Your task to perform on an android device: check android version Image 0: 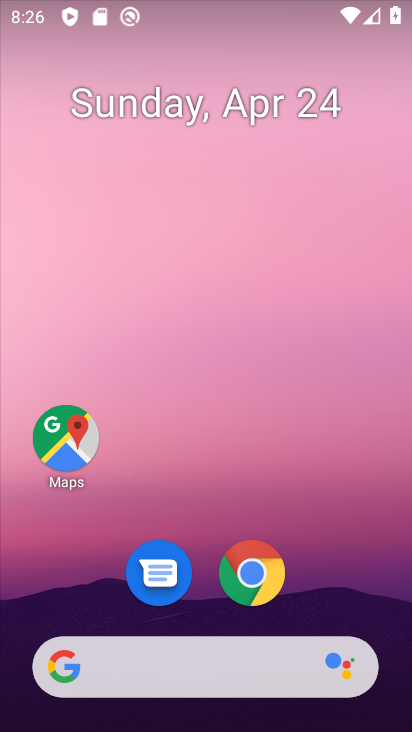
Step 0: drag from (353, 567) to (294, 45)
Your task to perform on an android device: check android version Image 1: 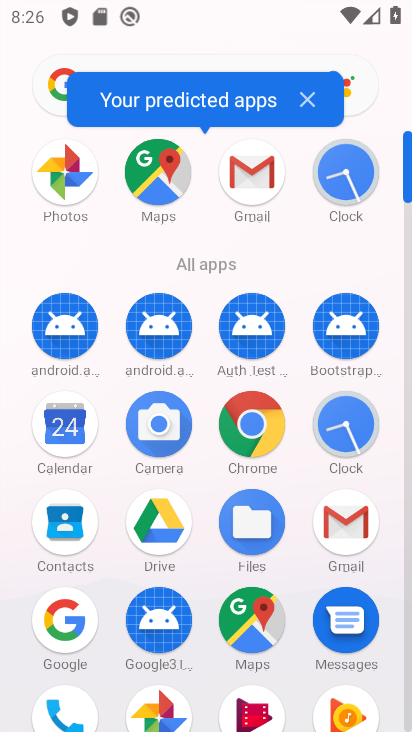
Step 1: drag from (310, 520) to (368, 155)
Your task to perform on an android device: check android version Image 2: 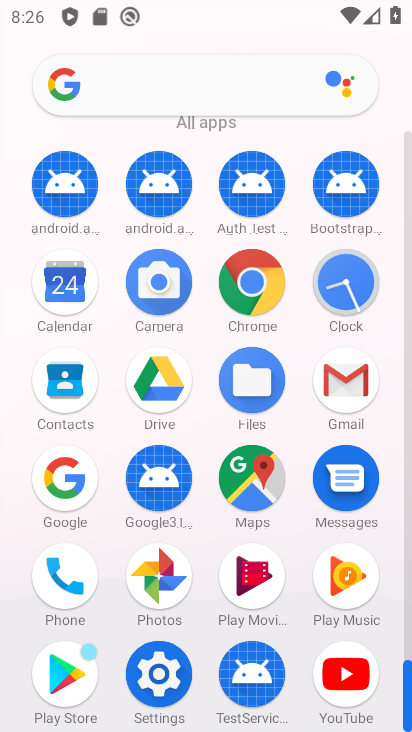
Step 2: click (153, 672)
Your task to perform on an android device: check android version Image 3: 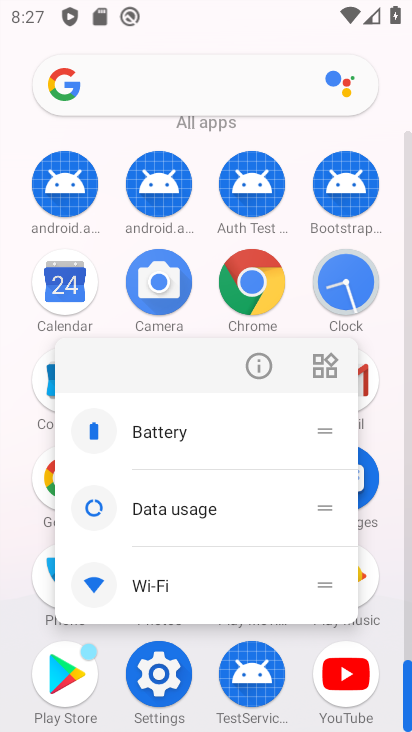
Step 3: click (389, 327)
Your task to perform on an android device: check android version Image 4: 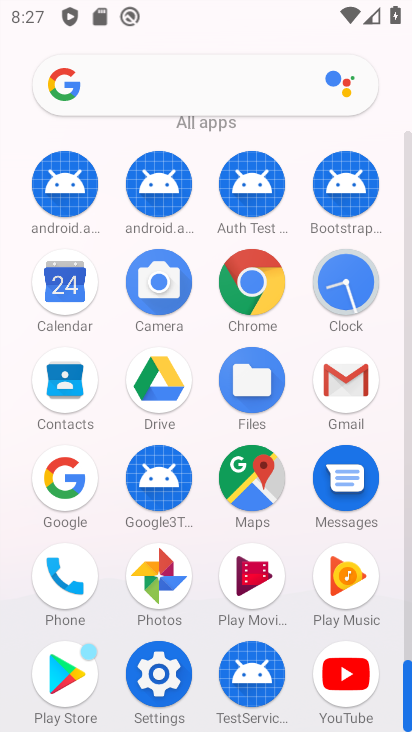
Step 4: click (160, 681)
Your task to perform on an android device: check android version Image 5: 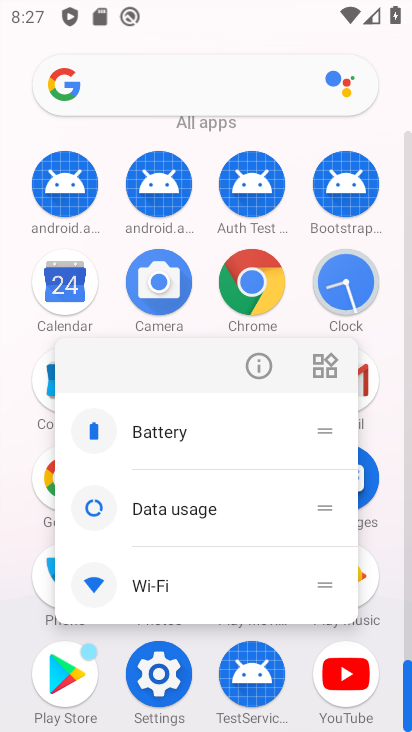
Step 5: click (161, 698)
Your task to perform on an android device: check android version Image 6: 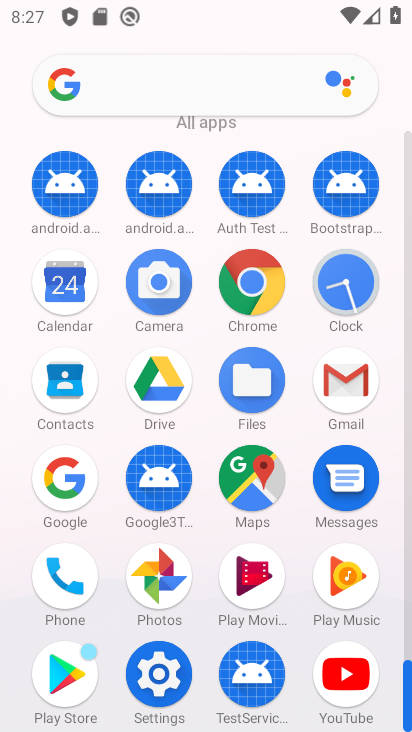
Step 6: click (153, 688)
Your task to perform on an android device: check android version Image 7: 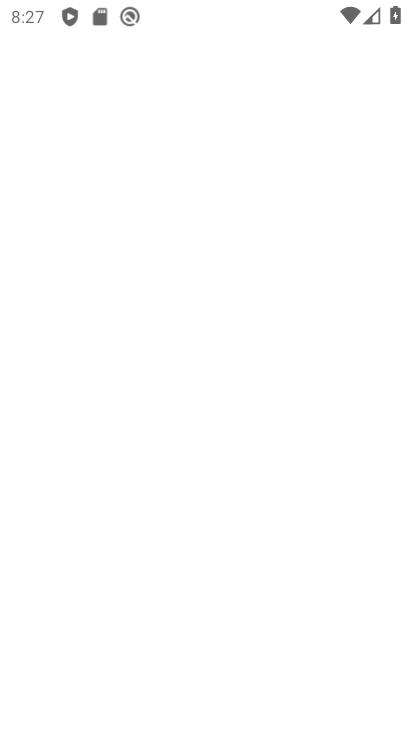
Step 7: click (160, 672)
Your task to perform on an android device: check android version Image 8: 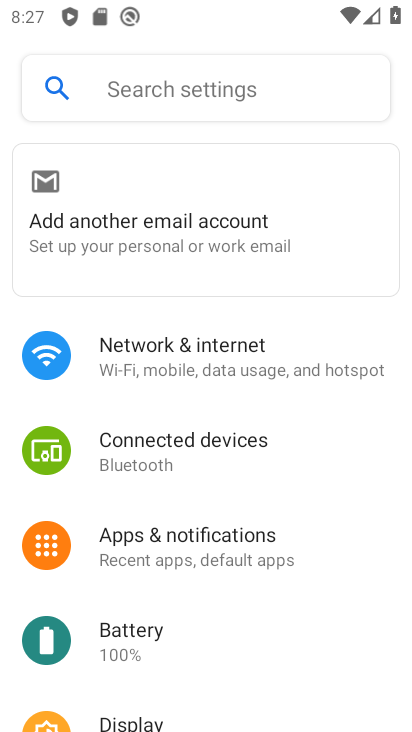
Step 8: drag from (228, 552) to (111, 2)
Your task to perform on an android device: check android version Image 9: 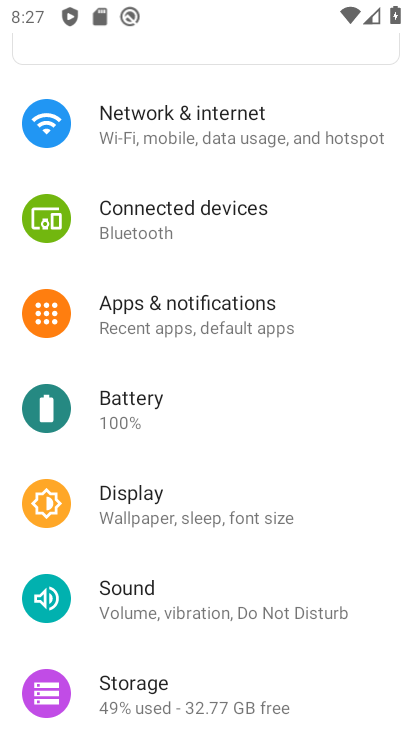
Step 9: drag from (169, 557) to (175, 11)
Your task to perform on an android device: check android version Image 10: 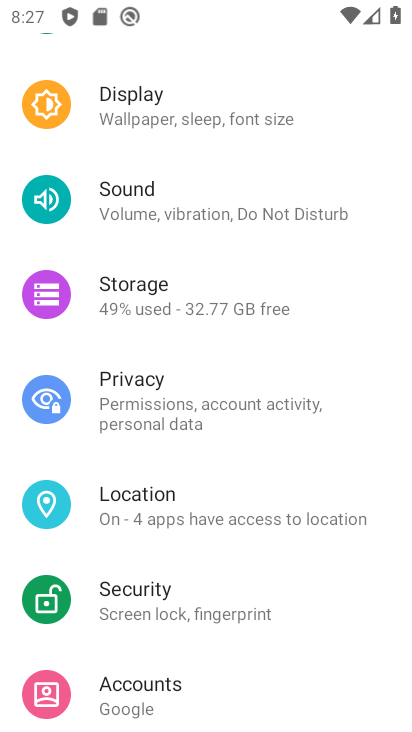
Step 10: drag from (213, 639) to (207, 9)
Your task to perform on an android device: check android version Image 11: 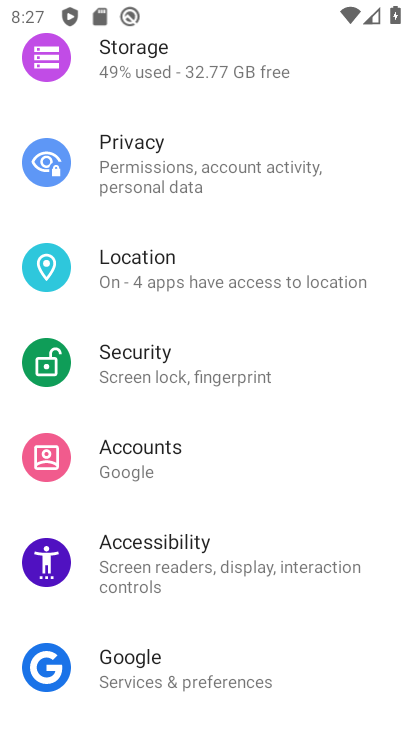
Step 11: drag from (222, 457) to (250, 161)
Your task to perform on an android device: check android version Image 12: 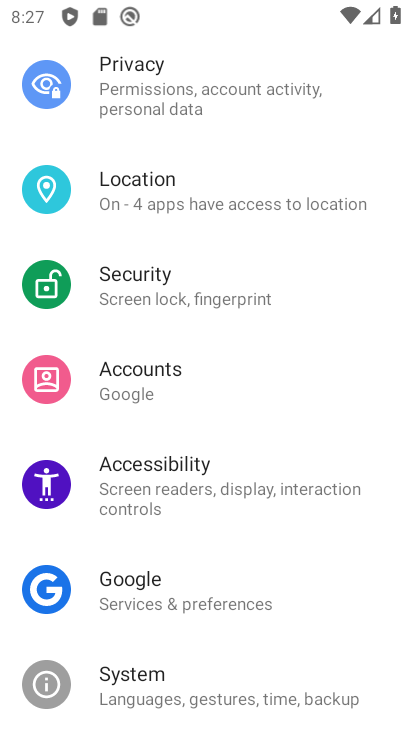
Step 12: drag from (161, 696) to (233, 280)
Your task to perform on an android device: check android version Image 13: 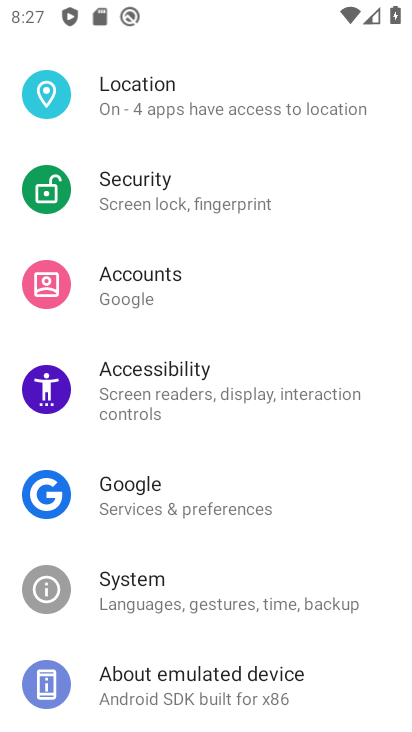
Step 13: click (206, 692)
Your task to perform on an android device: check android version Image 14: 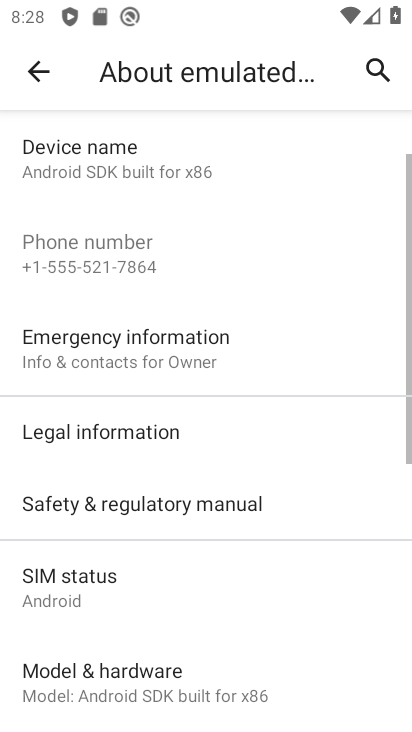
Step 14: drag from (327, 547) to (297, 390)
Your task to perform on an android device: check android version Image 15: 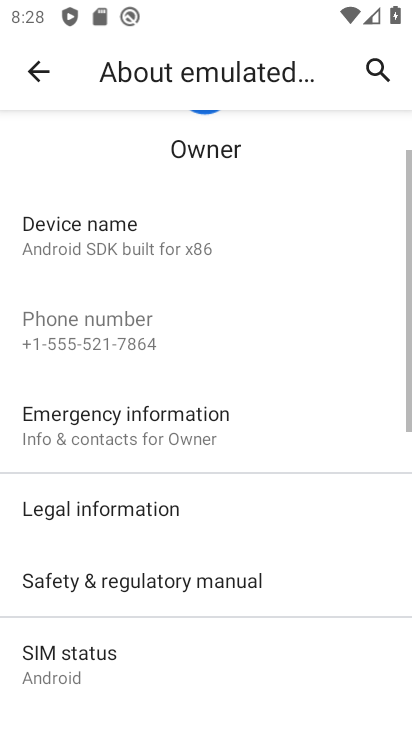
Step 15: drag from (260, 651) to (310, 203)
Your task to perform on an android device: check android version Image 16: 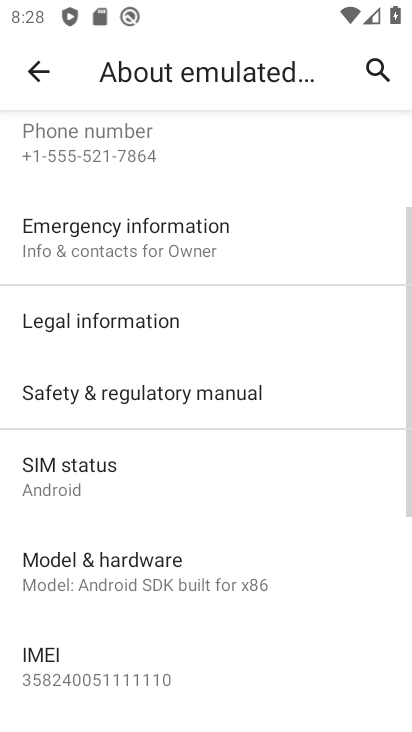
Step 16: drag from (177, 579) to (208, 176)
Your task to perform on an android device: check android version Image 17: 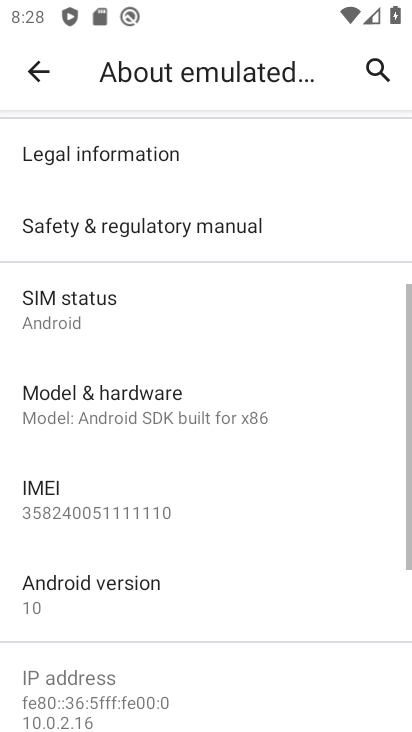
Step 17: click (100, 596)
Your task to perform on an android device: check android version Image 18: 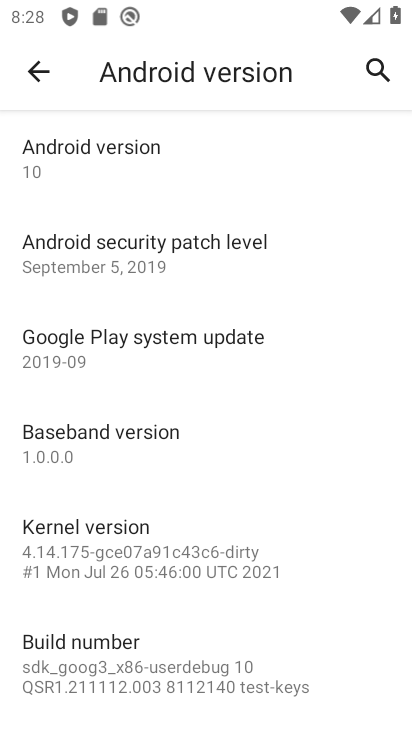
Step 18: task complete